Your task to perform on an android device: toggle location history Image 0: 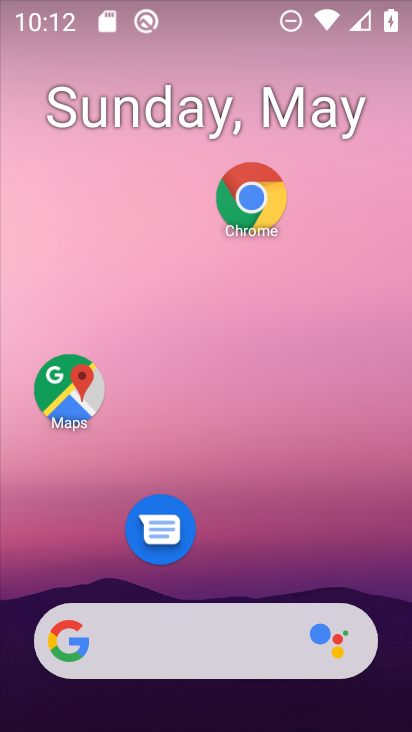
Step 0: drag from (278, 524) to (261, 0)
Your task to perform on an android device: toggle location history Image 1: 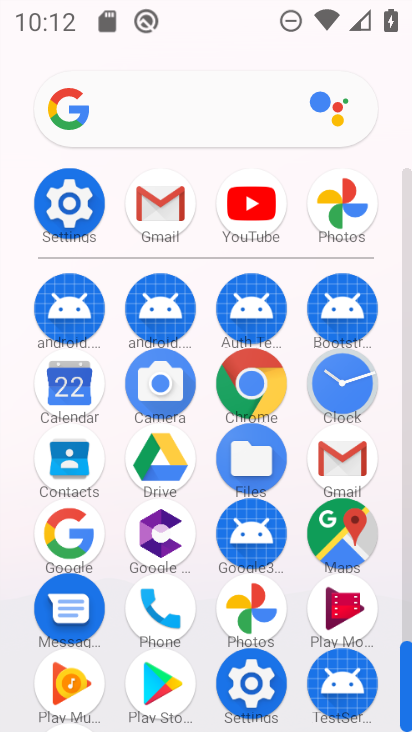
Step 1: click (71, 206)
Your task to perform on an android device: toggle location history Image 2: 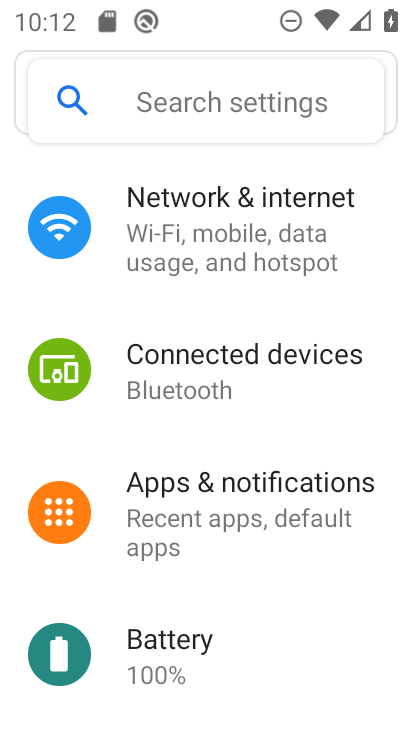
Step 2: drag from (222, 588) to (205, 403)
Your task to perform on an android device: toggle location history Image 3: 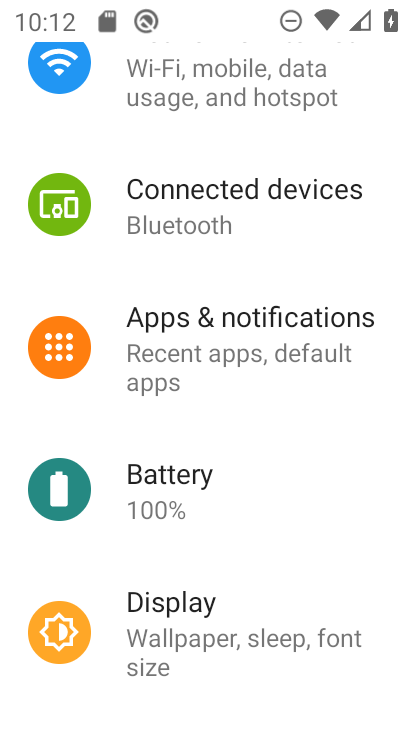
Step 3: drag from (235, 603) to (219, 340)
Your task to perform on an android device: toggle location history Image 4: 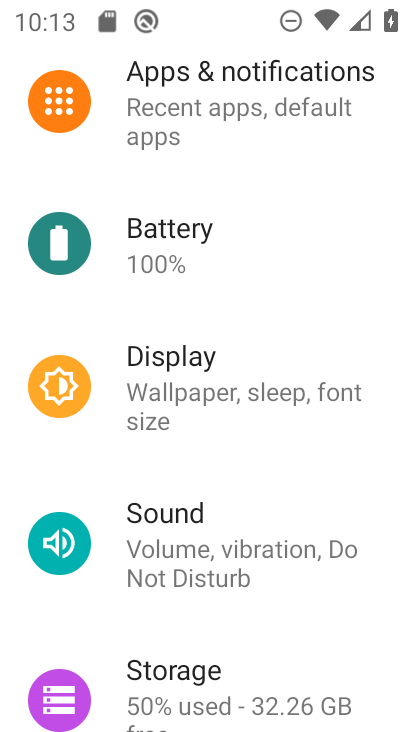
Step 4: drag from (267, 590) to (225, 348)
Your task to perform on an android device: toggle location history Image 5: 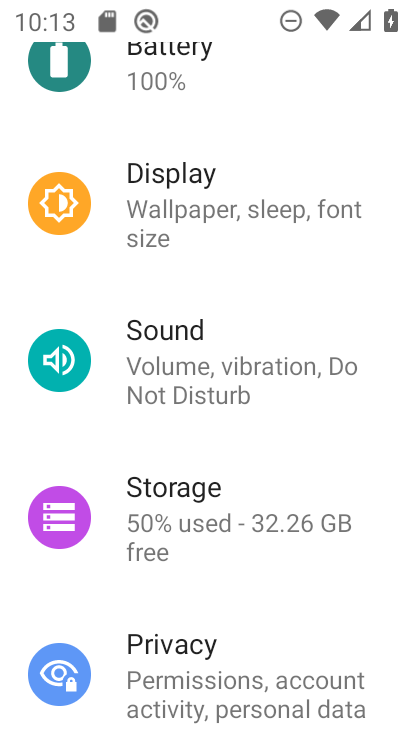
Step 5: drag from (227, 625) to (184, 418)
Your task to perform on an android device: toggle location history Image 6: 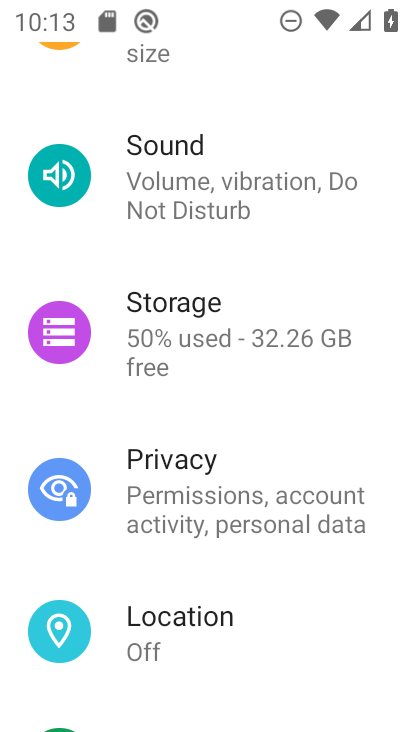
Step 6: click (157, 652)
Your task to perform on an android device: toggle location history Image 7: 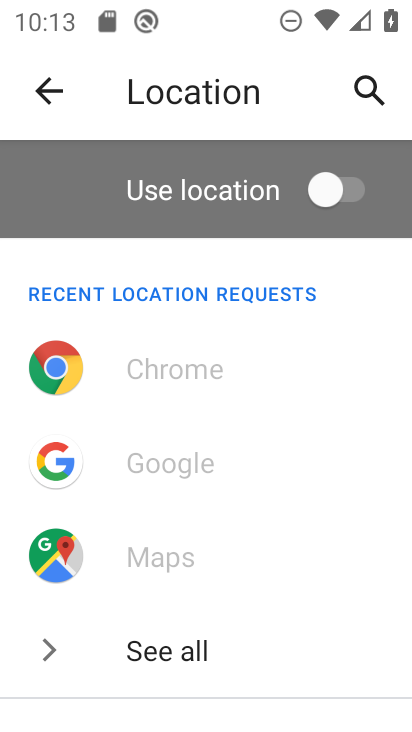
Step 7: drag from (162, 663) to (143, 420)
Your task to perform on an android device: toggle location history Image 8: 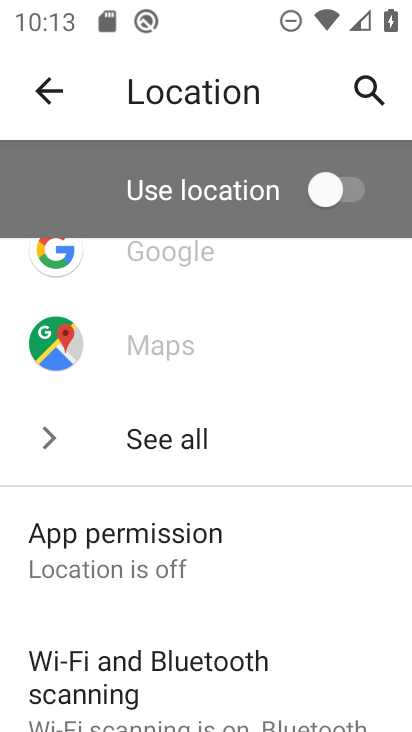
Step 8: drag from (209, 619) to (175, 364)
Your task to perform on an android device: toggle location history Image 9: 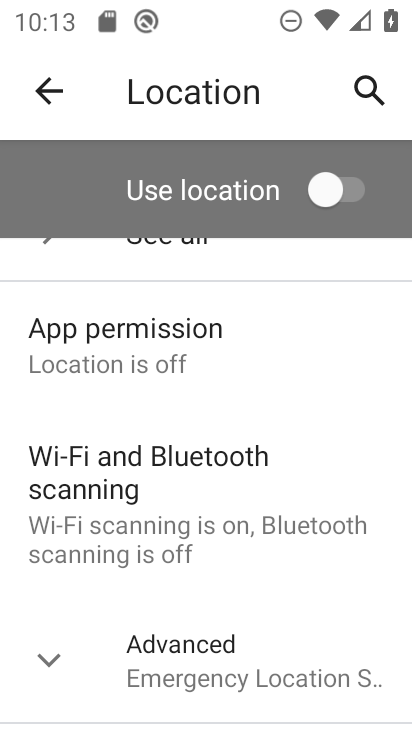
Step 9: click (202, 676)
Your task to perform on an android device: toggle location history Image 10: 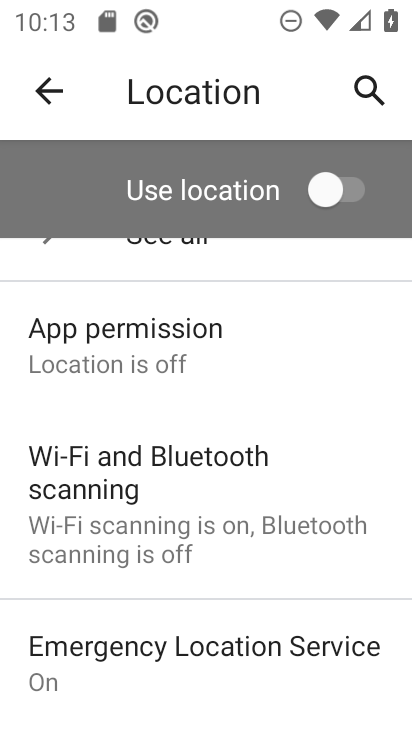
Step 10: drag from (234, 682) to (238, 374)
Your task to perform on an android device: toggle location history Image 11: 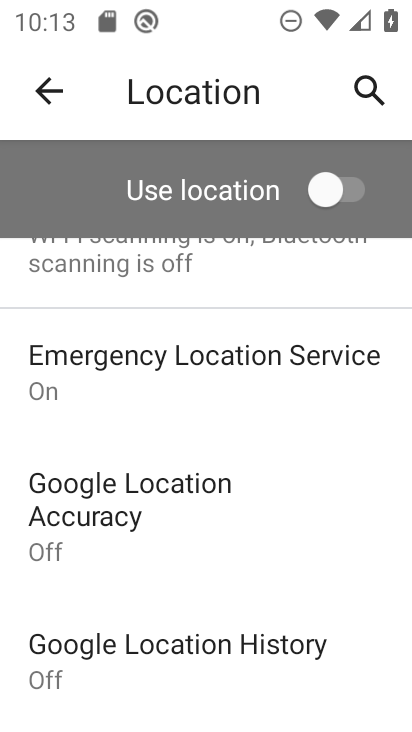
Step 11: click (192, 681)
Your task to perform on an android device: toggle location history Image 12: 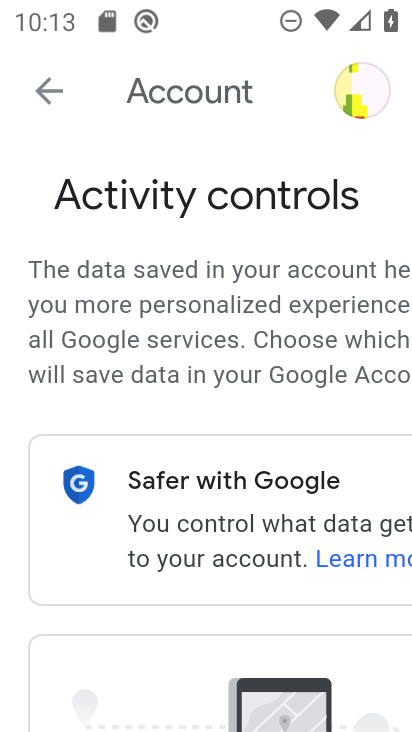
Step 12: drag from (220, 655) to (262, 176)
Your task to perform on an android device: toggle location history Image 13: 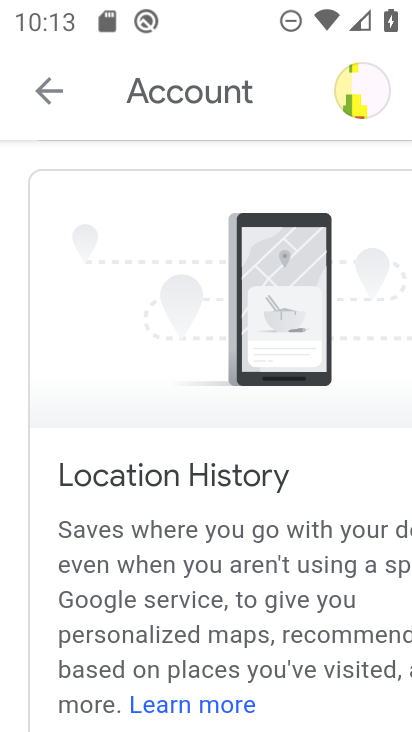
Step 13: drag from (218, 659) to (214, 330)
Your task to perform on an android device: toggle location history Image 14: 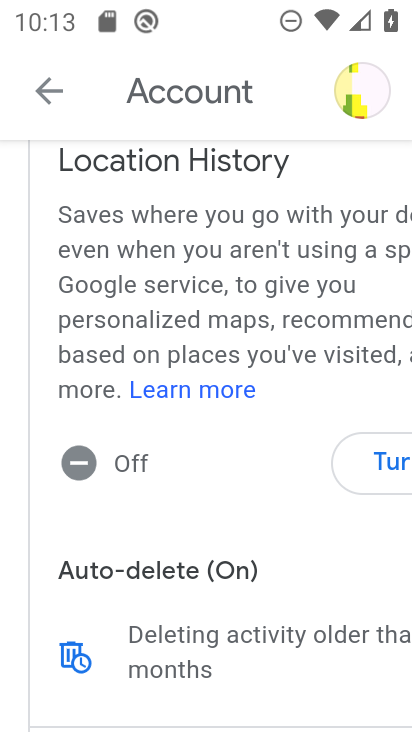
Step 14: click (381, 457)
Your task to perform on an android device: toggle location history Image 15: 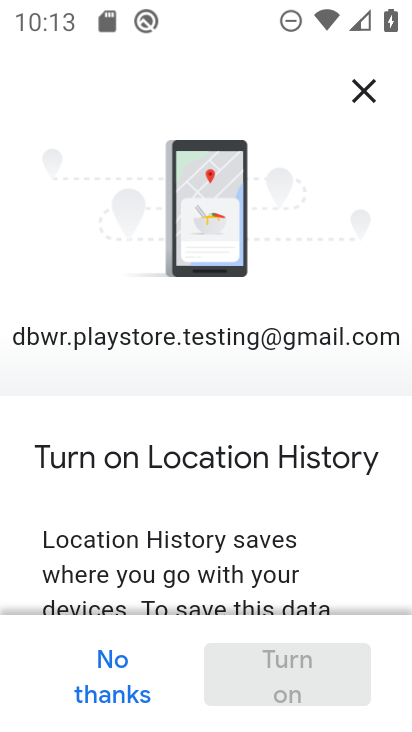
Step 15: drag from (250, 570) to (225, 258)
Your task to perform on an android device: toggle location history Image 16: 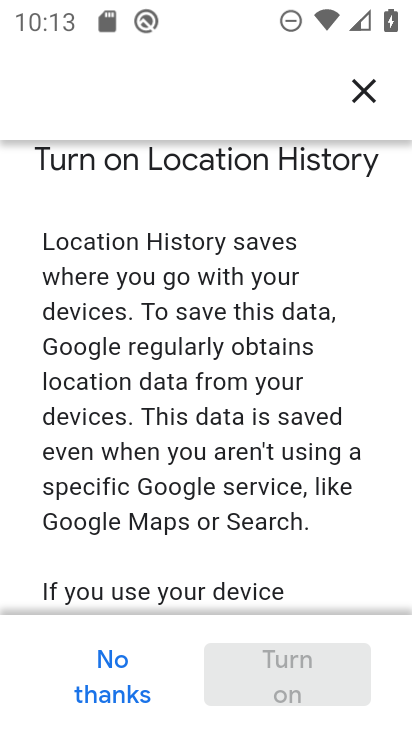
Step 16: drag from (279, 526) to (257, 263)
Your task to perform on an android device: toggle location history Image 17: 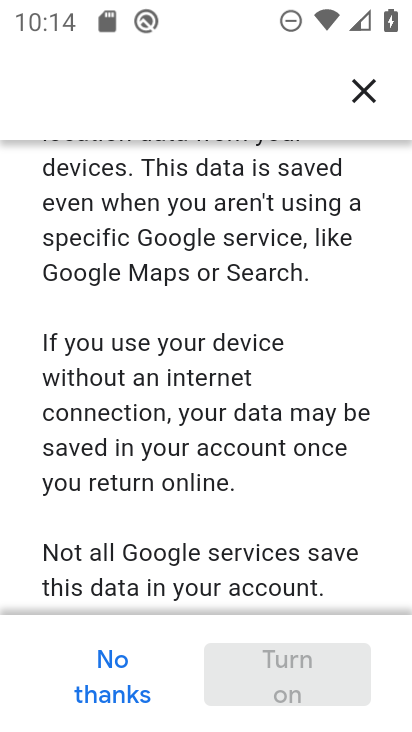
Step 17: drag from (247, 563) to (270, 222)
Your task to perform on an android device: toggle location history Image 18: 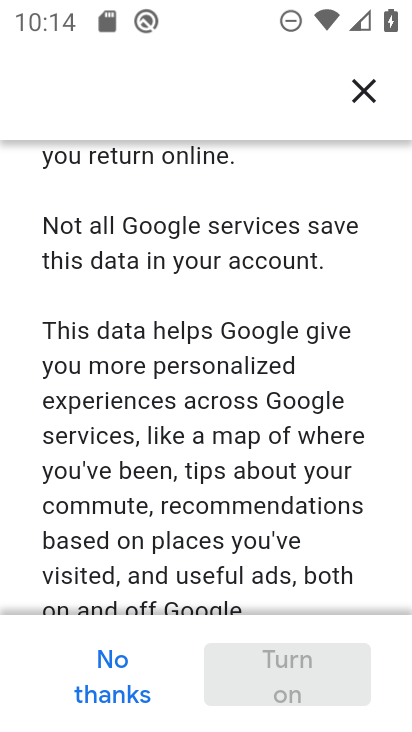
Step 18: drag from (151, 559) to (167, 164)
Your task to perform on an android device: toggle location history Image 19: 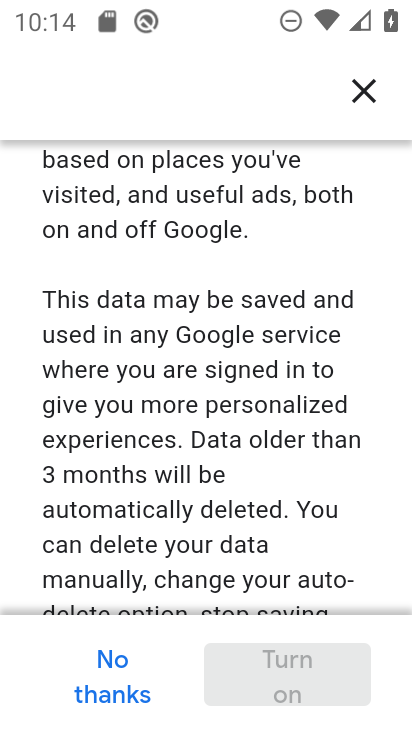
Step 19: drag from (195, 614) to (231, 259)
Your task to perform on an android device: toggle location history Image 20: 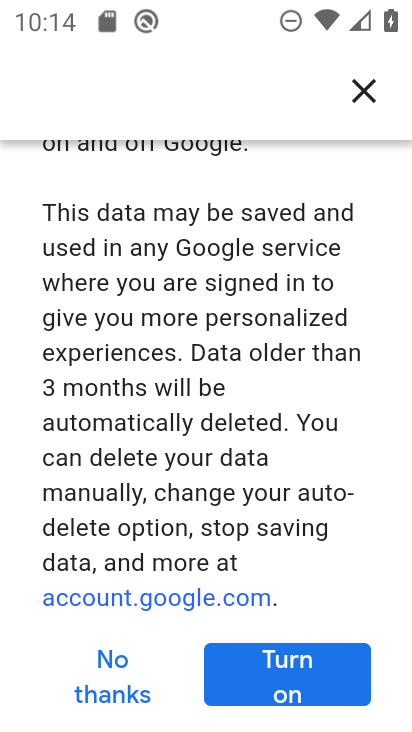
Step 20: click (306, 660)
Your task to perform on an android device: toggle location history Image 21: 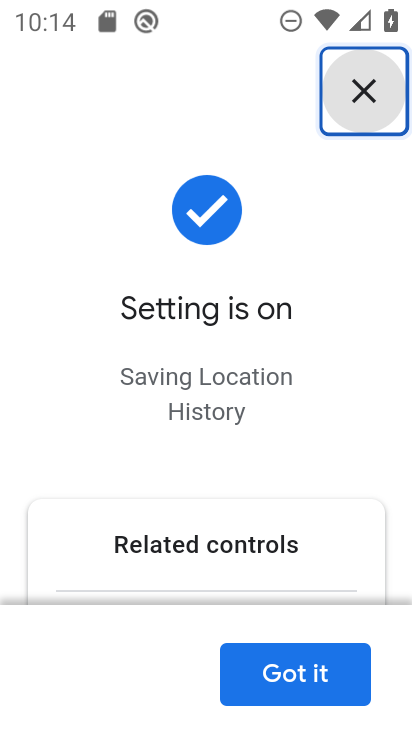
Step 21: task complete